Your task to perform on an android device: Open location settings Image 0: 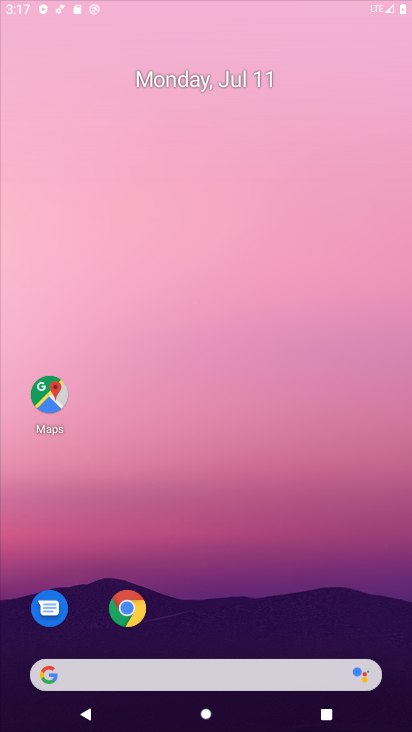
Step 0: click (226, 76)
Your task to perform on an android device: Open location settings Image 1: 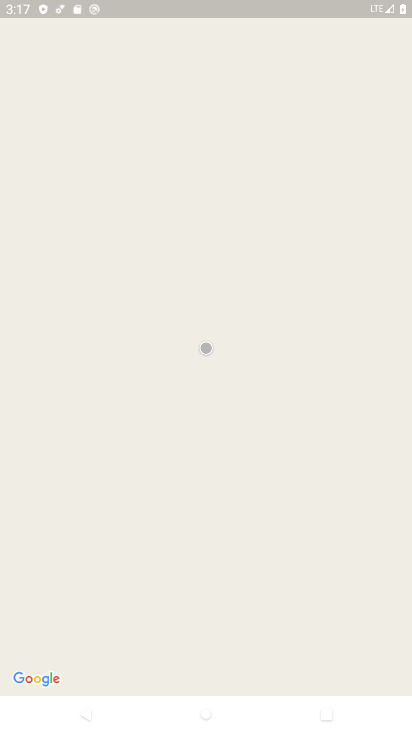
Step 1: drag from (300, 11) to (236, 495)
Your task to perform on an android device: Open location settings Image 2: 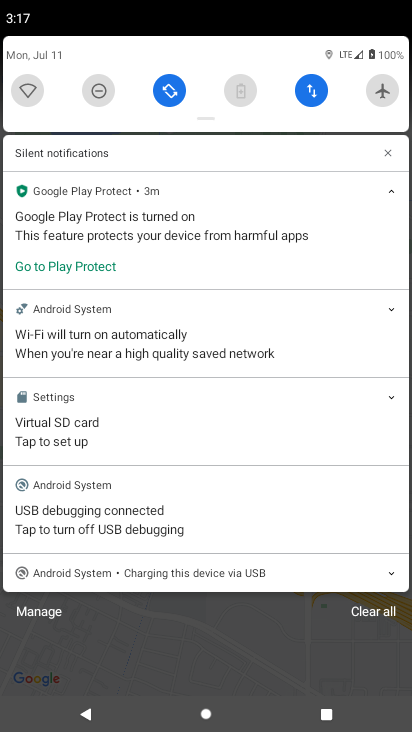
Step 2: drag from (243, 62) to (114, 607)
Your task to perform on an android device: Open location settings Image 3: 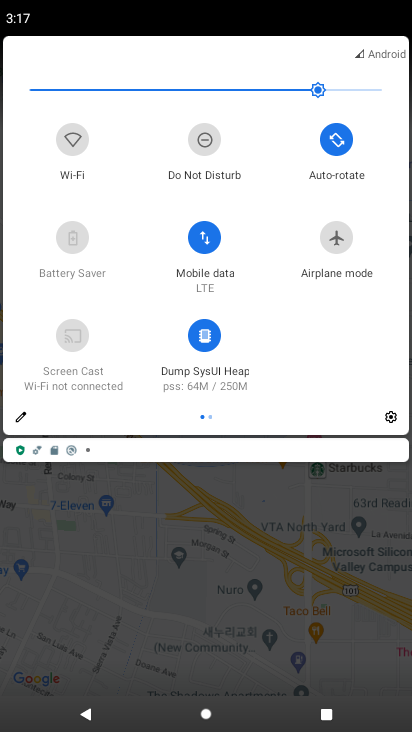
Step 3: click (389, 412)
Your task to perform on an android device: Open location settings Image 4: 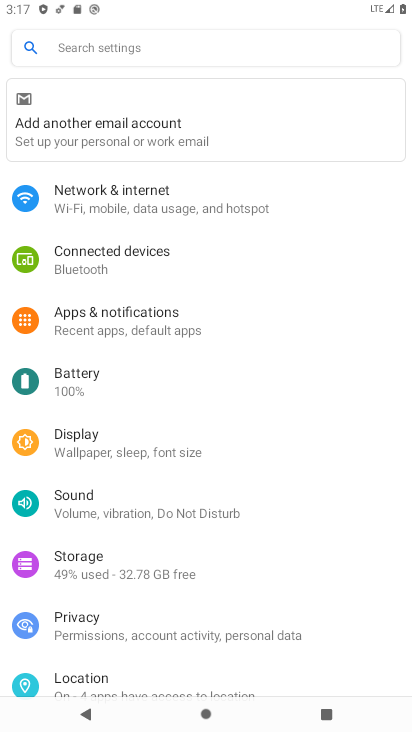
Step 4: click (83, 685)
Your task to perform on an android device: Open location settings Image 5: 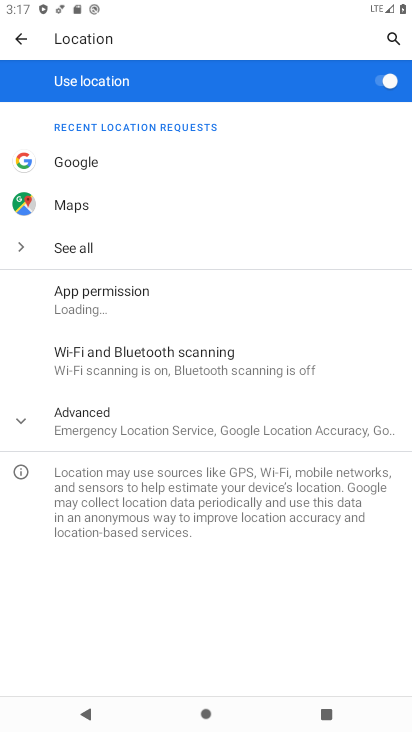
Step 5: task complete